Your task to perform on an android device: What's on my calendar tomorrow? Image 0: 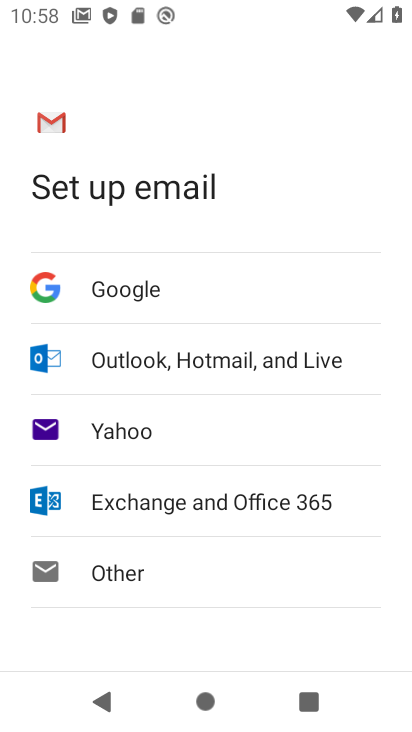
Step 0: press home button
Your task to perform on an android device: What's on my calendar tomorrow? Image 1: 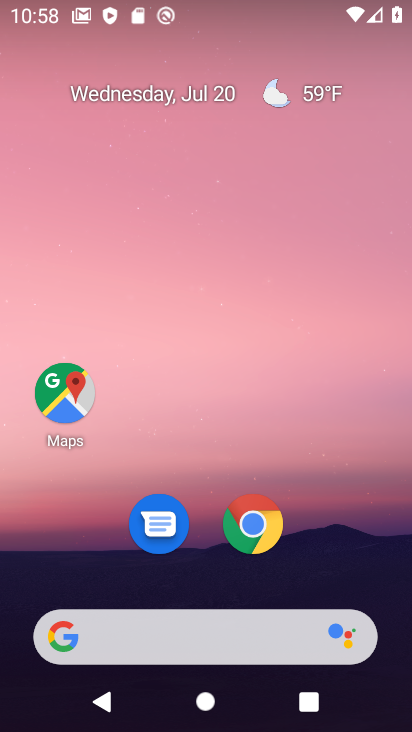
Step 1: drag from (180, 630) to (309, 188)
Your task to perform on an android device: What's on my calendar tomorrow? Image 2: 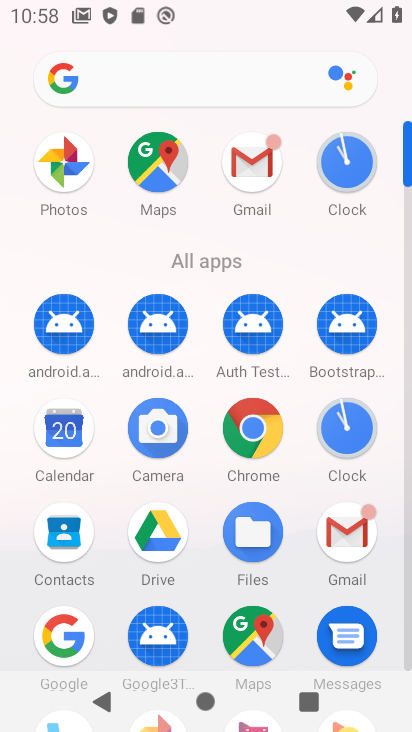
Step 2: click (67, 437)
Your task to perform on an android device: What's on my calendar tomorrow? Image 3: 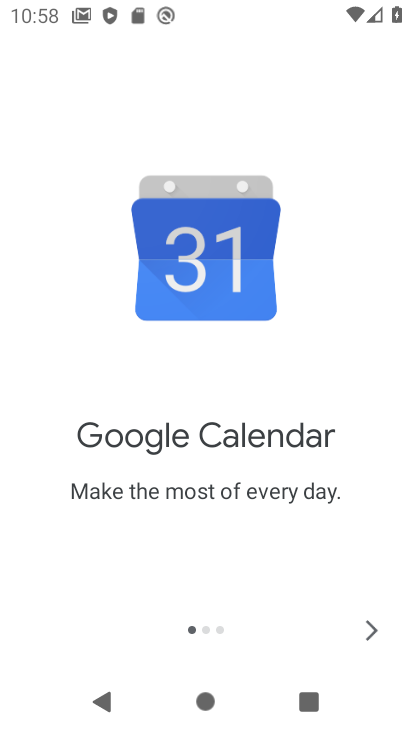
Step 3: click (373, 623)
Your task to perform on an android device: What's on my calendar tomorrow? Image 4: 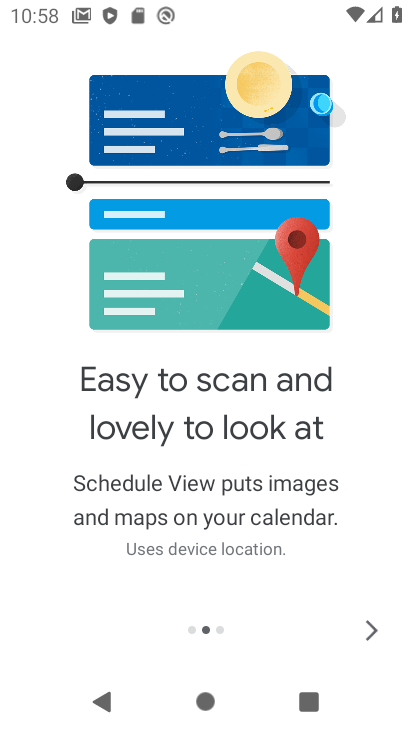
Step 4: click (373, 625)
Your task to perform on an android device: What's on my calendar tomorrow? Image 5: 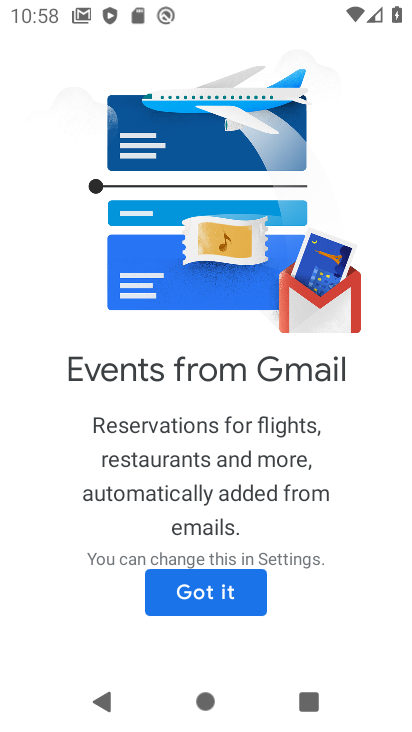
Step 5: click (239, 592)
Your task to perform on an android device: What's on my calendar tomorrow? Image 6: 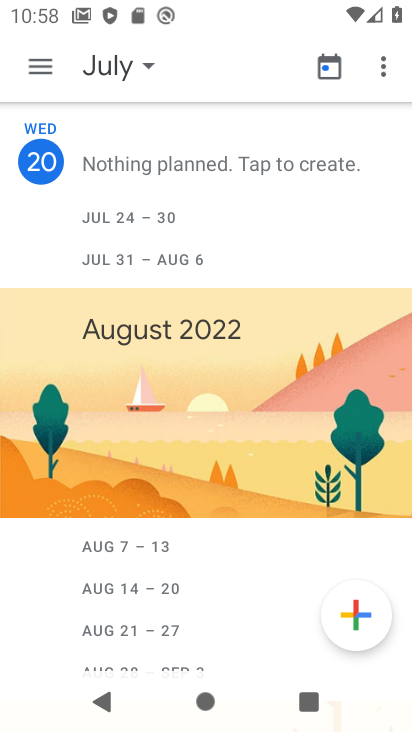
Step 6: click (121, 67)
Your task to perform on an android device: What's on my calendar tomorrow? Image 7: 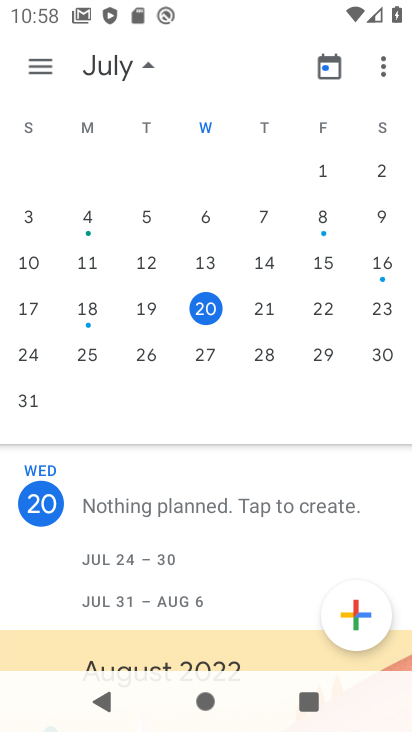
Step 7: click (265, 311)
Your task to perform on an android device: What's on my calendar tomorrow? Image 8: 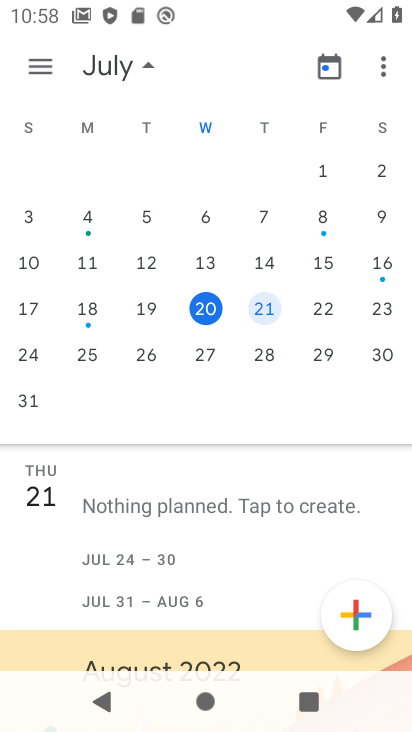
Step 8: click (54, 62)
Your task to perform on an android device: What's on my calendar tomorrow? Image 9: 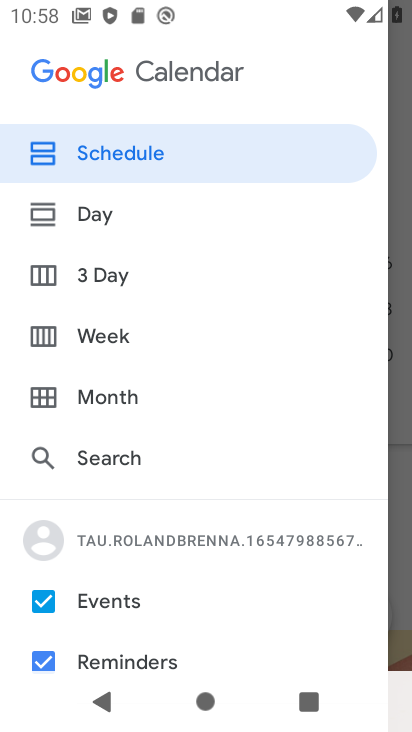
Step 9: click (106, 159)
Your task to perform on an android device: What's on my calendar tomorrow? Image 10: 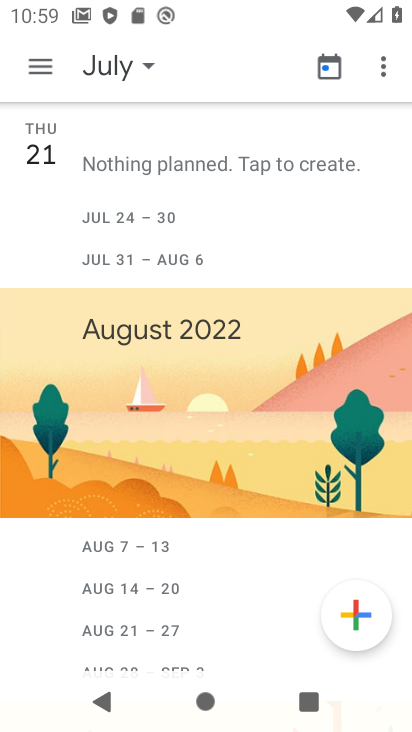
Step 10: task complete